Your task to perform on an android device: find which apps use the phone's location Image 0: 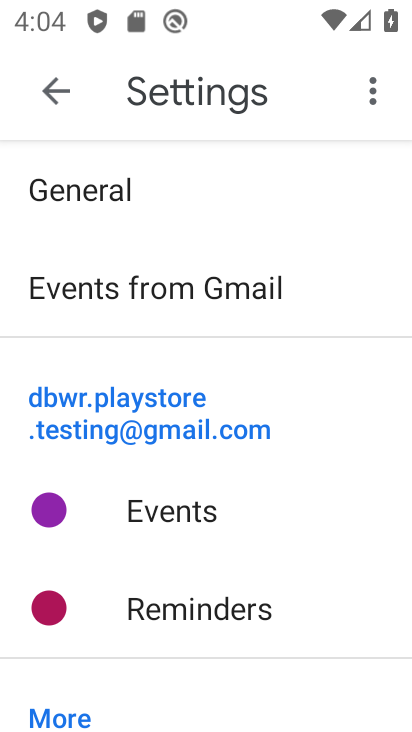
Step 0: press home button
Your task to perform on an android device: find which apps use the phone's location Image 1: 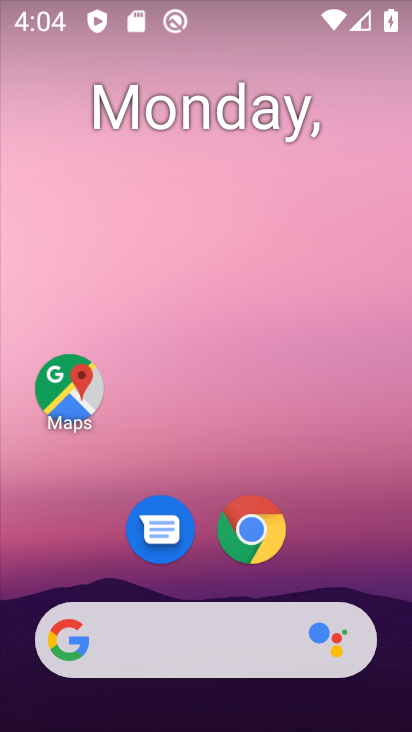
Step 1: drag from (205, 529) to (263, 13)
Your task to perform on an android device: find which apps use the phone's location Image 2: 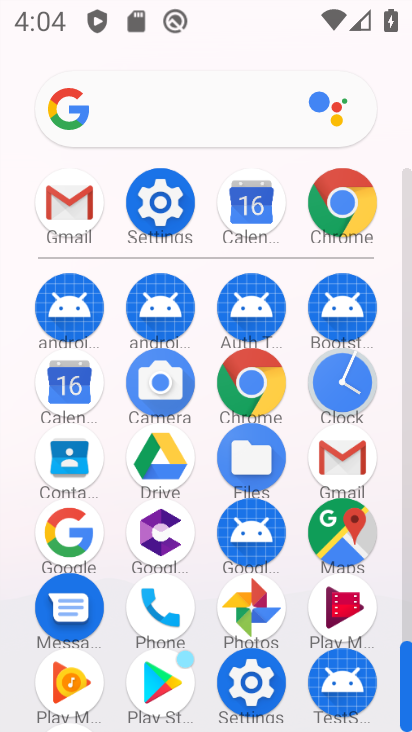
Step 2: click (168, 213)
Your task to perform on an android device: find which apps use the phone's location Image 3: 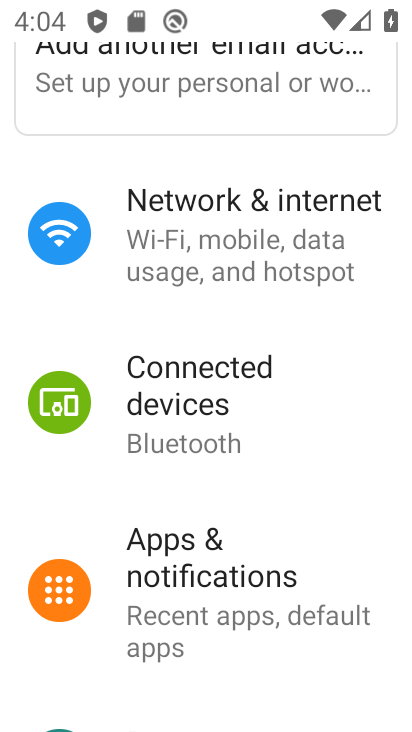
Step 3: drag from (147, 554) to (224, 196)
Your task to perform on an android device: find which apps use the phone's location Image 4: 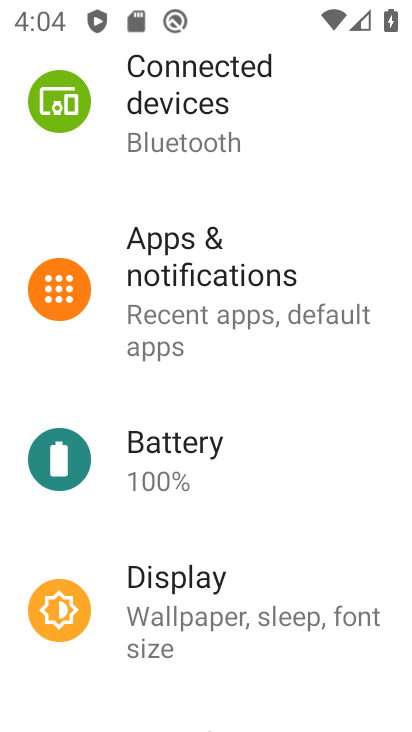
Step 4: drag from (284, 510) to (370, 192)
Your task to perform on an android device: find which apps use the phone's location Image 5: 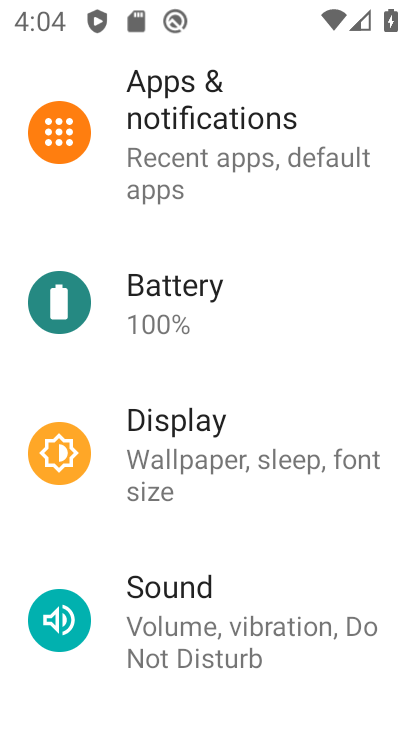
Step 5: drag from (230, 620) to (257, 363)
Your task to perform on an android device: find which apps use the phone's location Image 6: 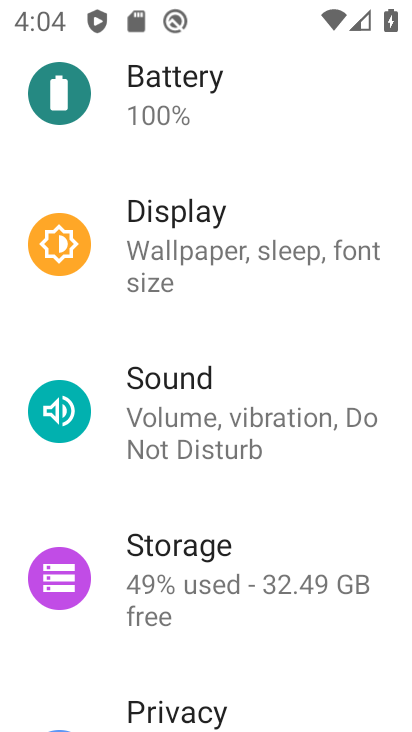
Step 6: drag from (260, 523) to (268, 242)
Your task to perform on an android device: find which apps use the phone's location Image 7: 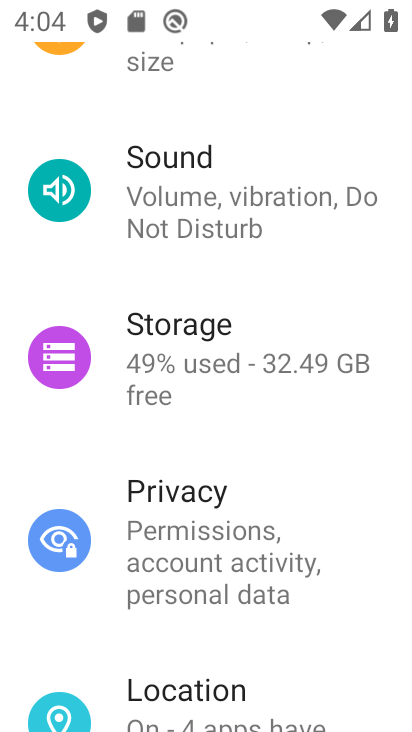
Step 7: drag from (193, 589) to (201, 338)
Your task to perform on an android device: find which apps use the phone's location Image 8: 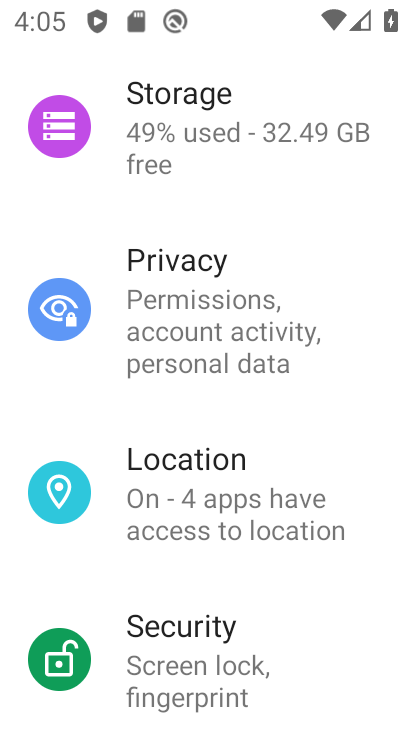
Step 8: click (206, 516)
Your task to perform on an android device: find which apps use the phone's location Image 9: 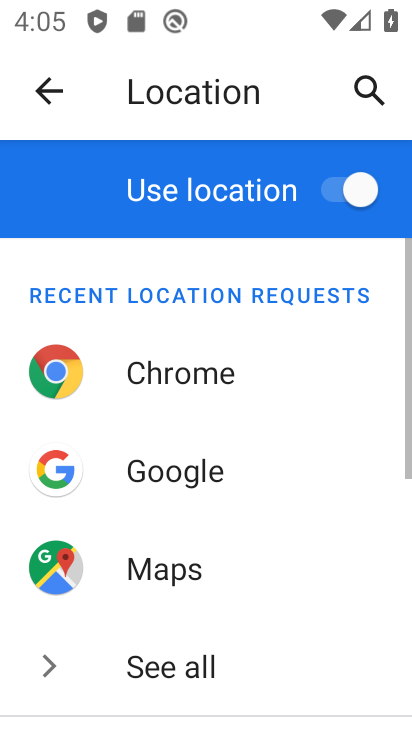
Step 9: drag from (226, 564) to (239, 300)
Your task to perform on an android device: find which apps use the phone's location Image 10: 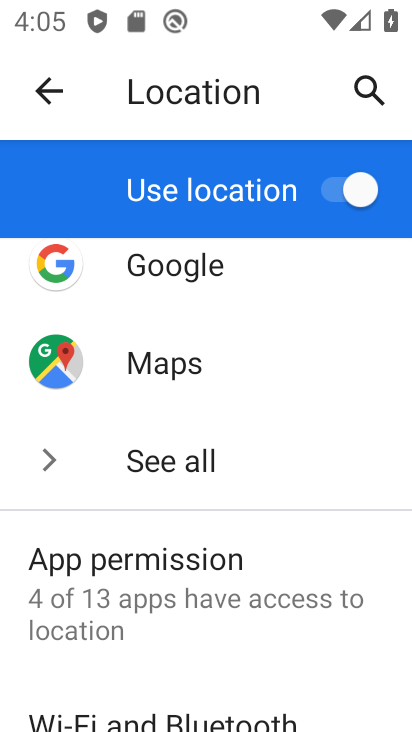
Step 10: click (222, 584)
Your task to perform on an android device: find which apps use the phone's location Image 11: 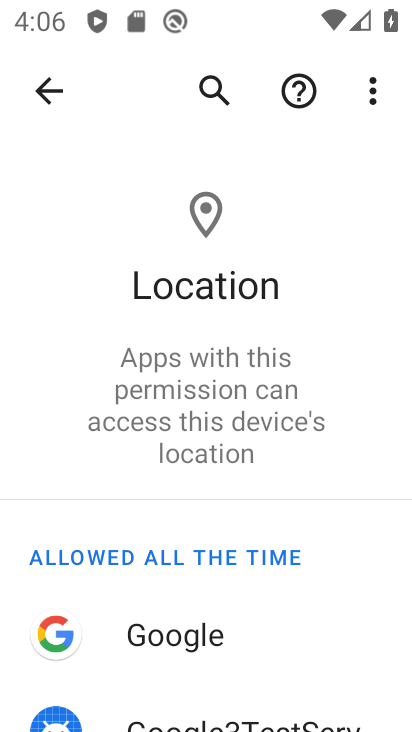
Step 11: task complete